Your task to perform on an android device: toggle notification dots Image 0: 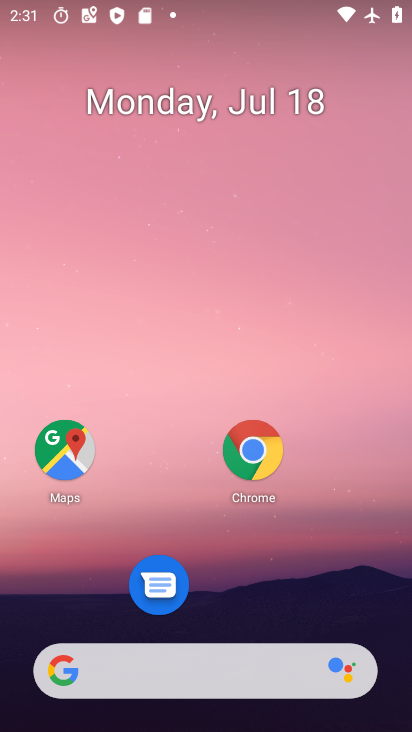
Step 0: press home button
Your task to perform on an android device: toggle notification dots Image 1: 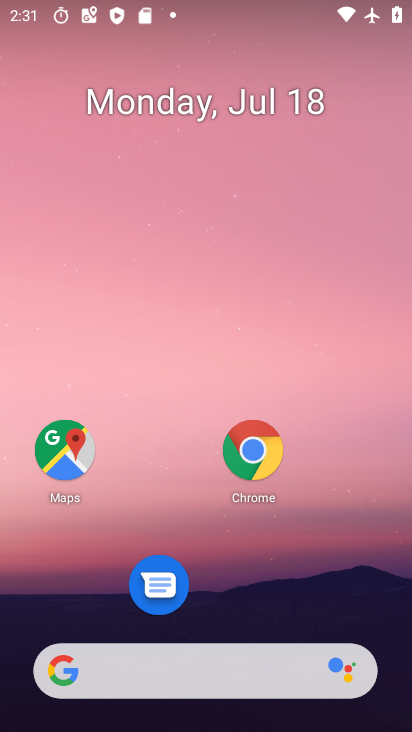
Step 1: drag from (178, 657) to (295, 20)
Your task to perform on an android device: toggle notification dots Image 2: 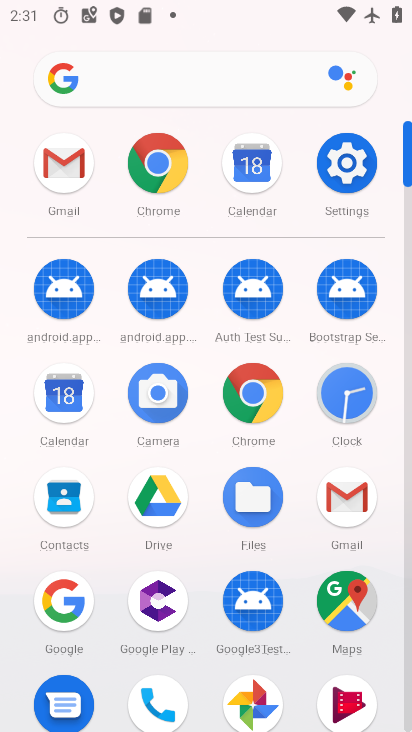
Step 2: click (360, 167)
Your task to perform on an android device: toggle notification dots Image 3: 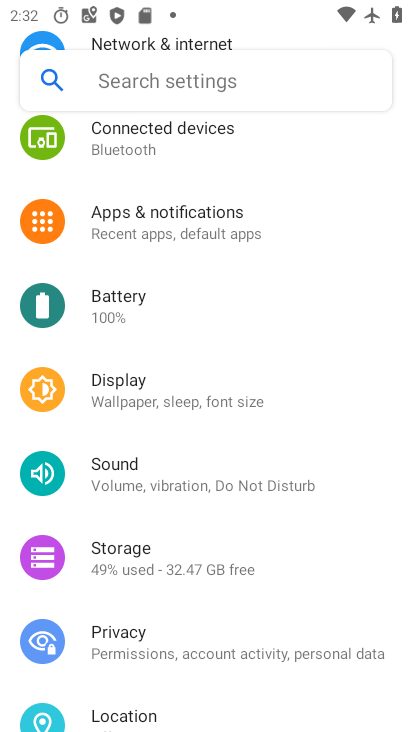
Step 3: click (179, 221)
Your task to perform on an android device: toggle notification dots Image 4: 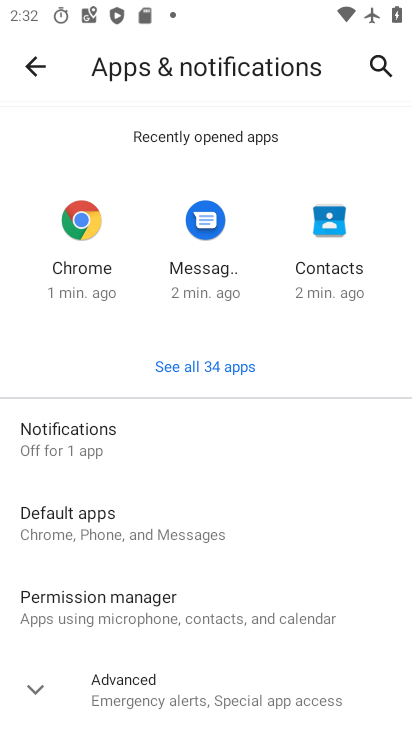
Step 4: click (68, 442)
Your task to perform on an android device: toggle notification dots Image 5: 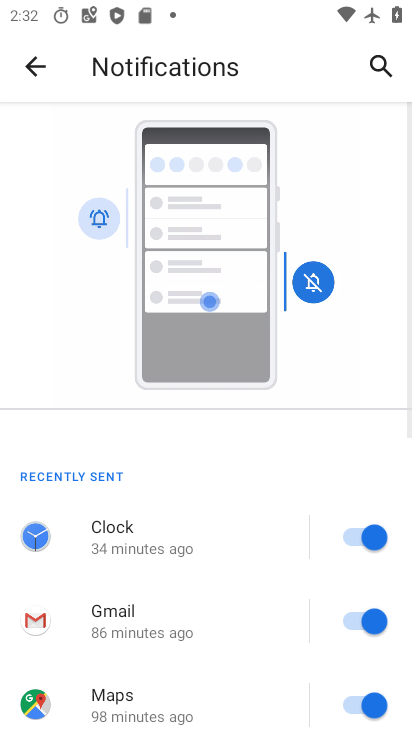
Step 5: drag from (256, 637) to (331, 99)
Your task to perform on an android device: toggle notification dots Image 6: 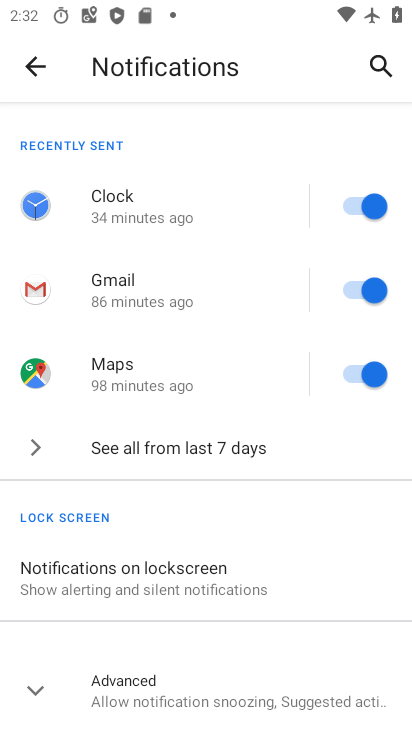
Step 6: click (148, 683)
Your task to perform on an android device: toggle notification dots Image 7: 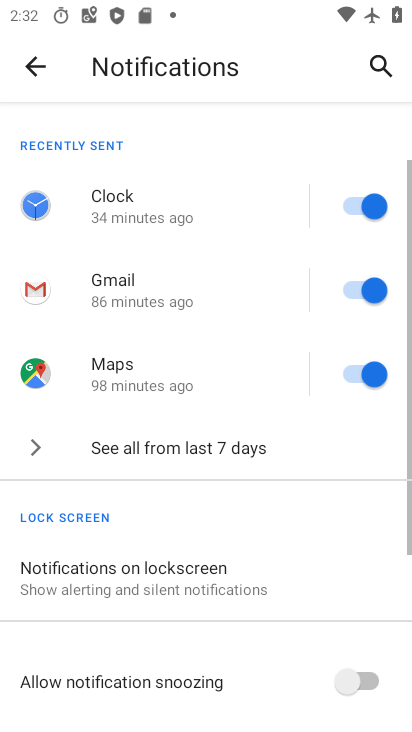
Step 7: drag from (227, 687) to (290, 101)
Your task to perform on an android device: toggle notification dots Image 8: 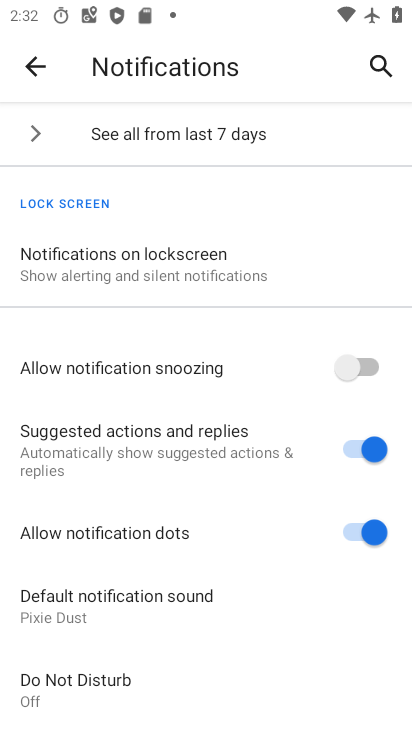
Step 8: click (351, 533)
Your task to perform on an android device: toggle notification dots Image 9: 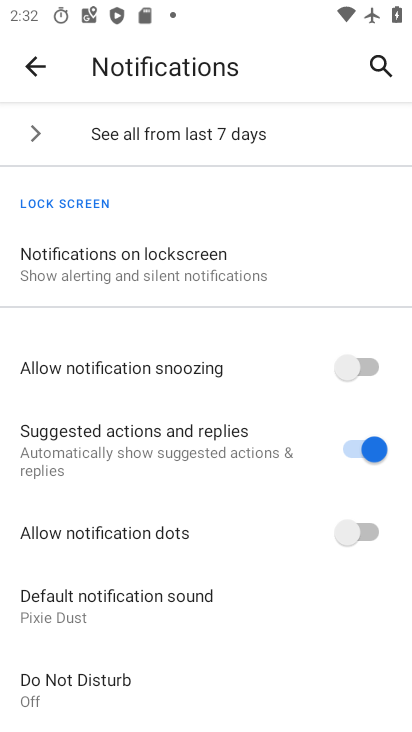
Step 9: task complete